Your task to perform on an android device: toggle airplane mode Image 0: 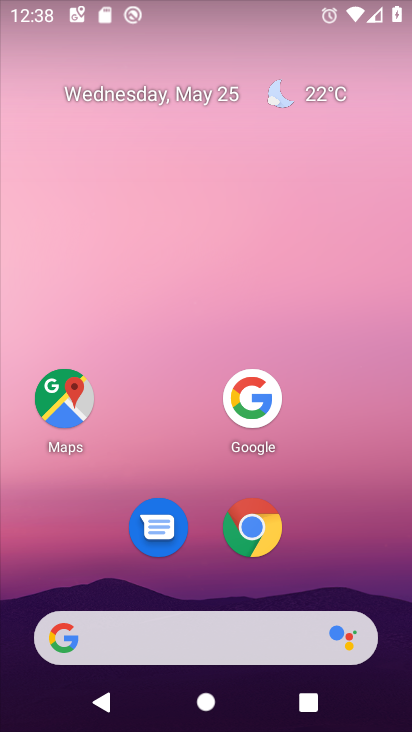
Step 0: drag from (207, 634) to (362, 59)
Your task to perform on an android device: toggle airplane mode Image 1: 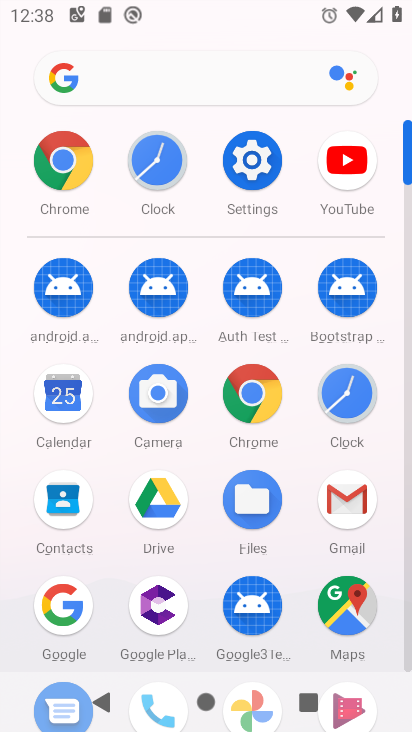
Step 1: click (251, 154)
Your task to perform on an android device: toggle airplane mode Image 2: 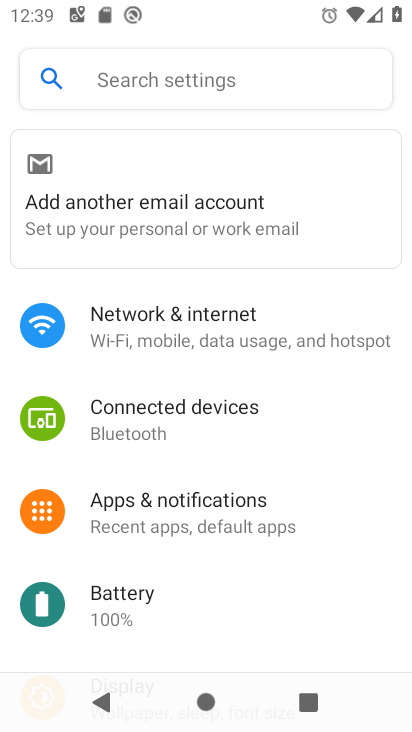
Step 2: click (213, 327)
Your task to perform on an android device: toggle airplane mode Image 3: 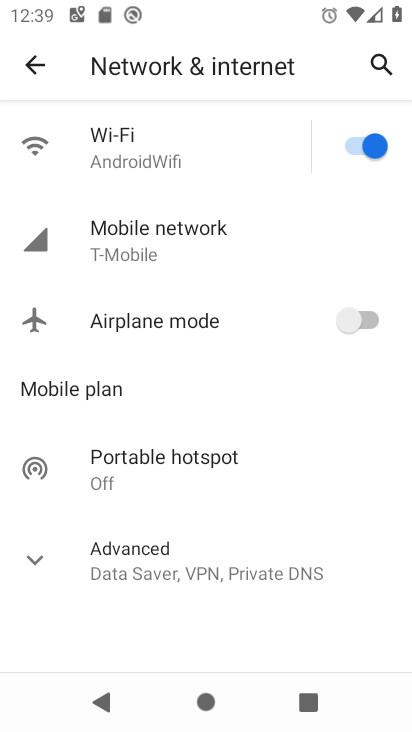
Step 3: click (366, 317)
Your task to perform on an android device: toggle airplane mode Image 4: 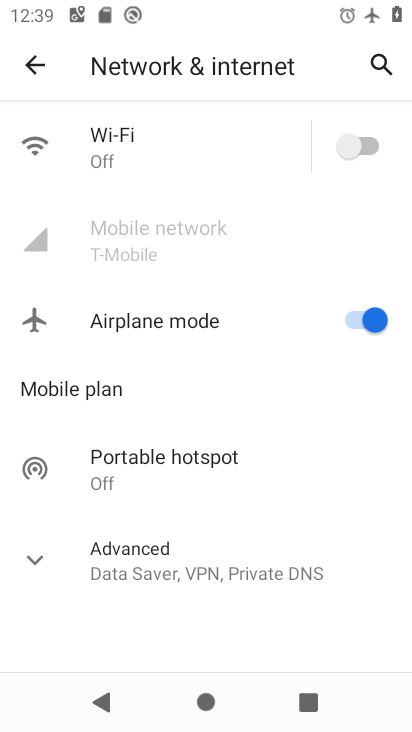
Step 4: task complete